Your task to perform on an android device: Go to Yahoo.com Image 0: 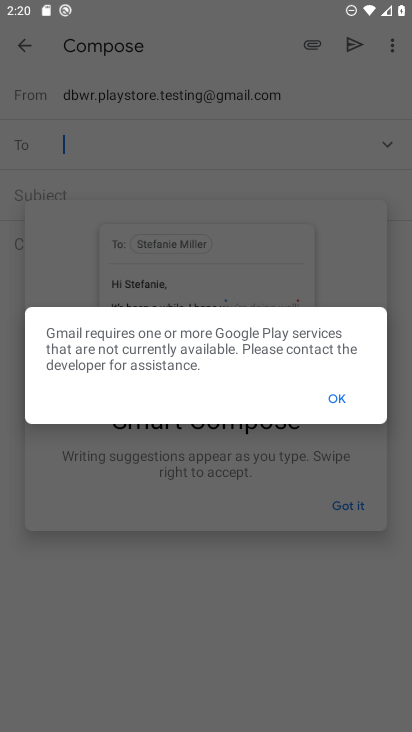
Step 0: press home button
Your task to perform on an android device: Go to Yahoo.com Image 1: 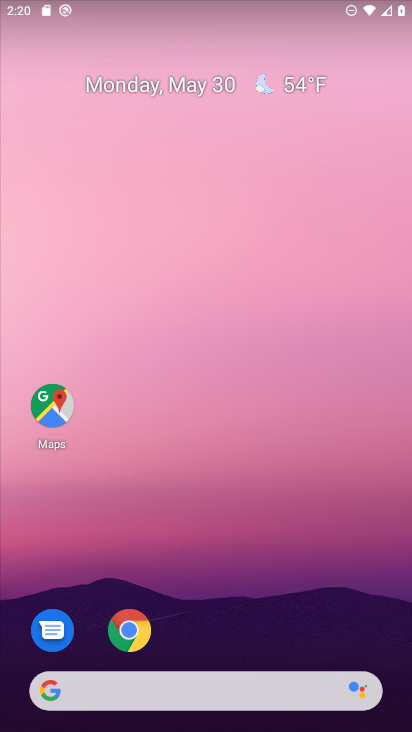
Step 1: click (129, 632)
Your task to perform on an android device: Go to Yahoo.com Image 2: 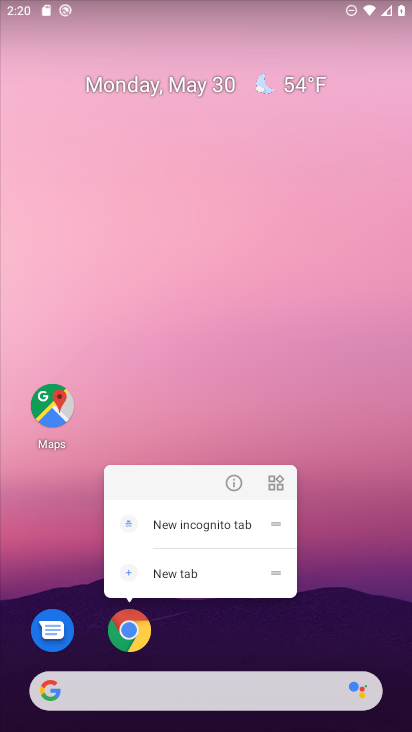
Step 2: click (134, 632)
Your task to perform on an android device: Go to Yahoo.com Image 3: 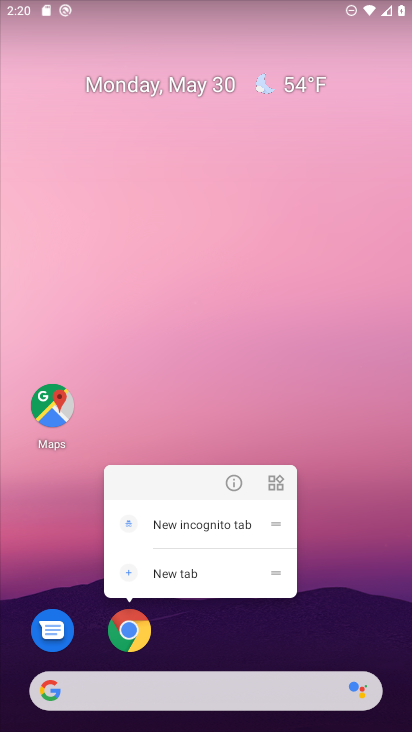
Step 3: click (131, 632)
Your task to perform on an android device: Go to Yahoo.com Image 4: 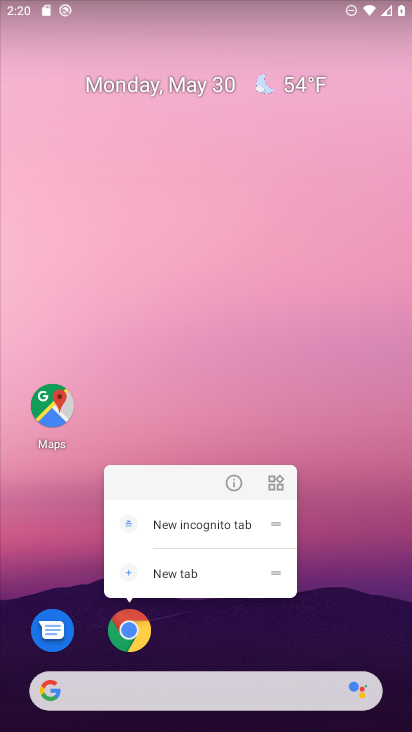
Step 4: click (128, 630)
Your task to perform on an android device: Go to Yahoo.com Image 5: 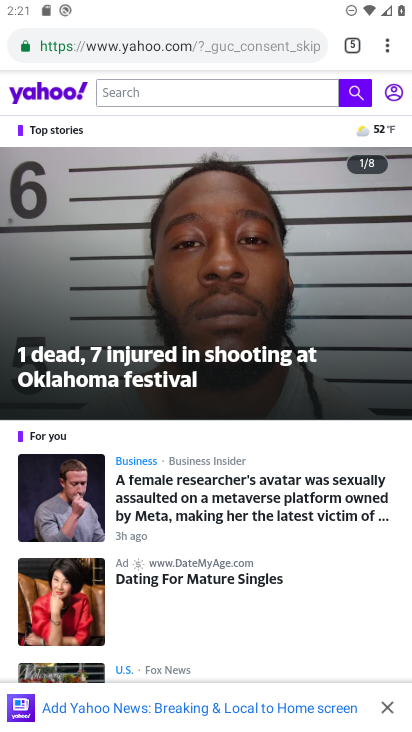
Step 5: drag from (385, 49) to (250, 95)
Your task to perform on an android device: Go to Yahoo.com Image 6: 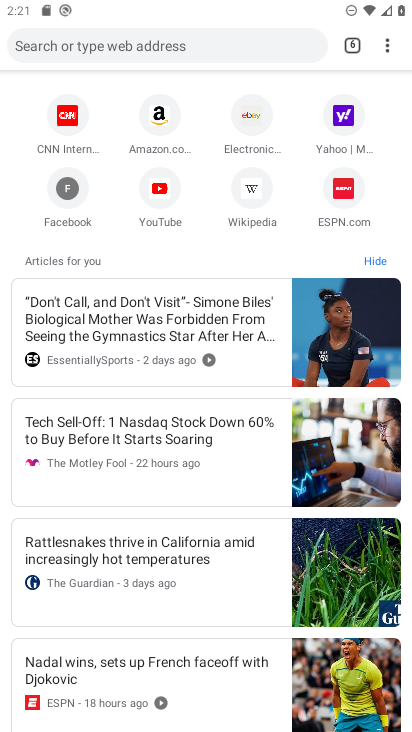
Step 6: click (340, 115)
Your task to perform on an android device: Go to Yahoo.com Image 7: 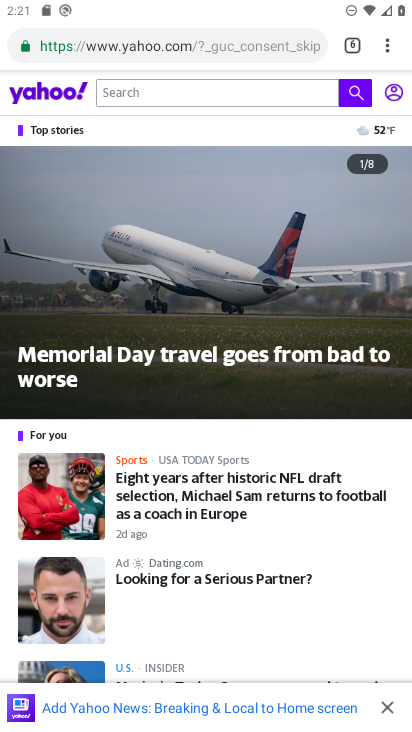
Step 7: task complete